Your task to perform on an android device: Open calendar and show me the fourth week of next month Image 0: 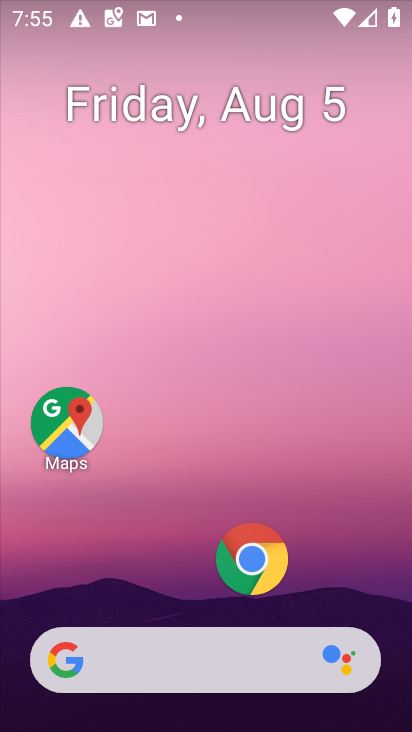
Step 0: drag from (155, 533) to (183, 194)
Your task to perform on an android device: Open calendar and show me the fourth week of next month Image 1: 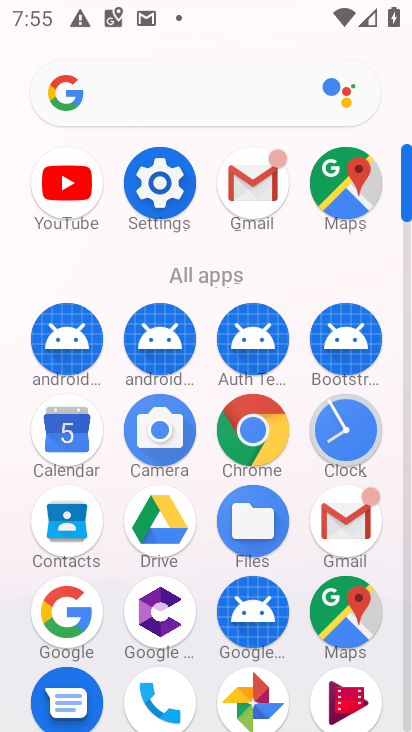
Step 1: click (75, 437)
Your task to perform on an android device: Open calendar and show me the fourth week of next month Image 2: 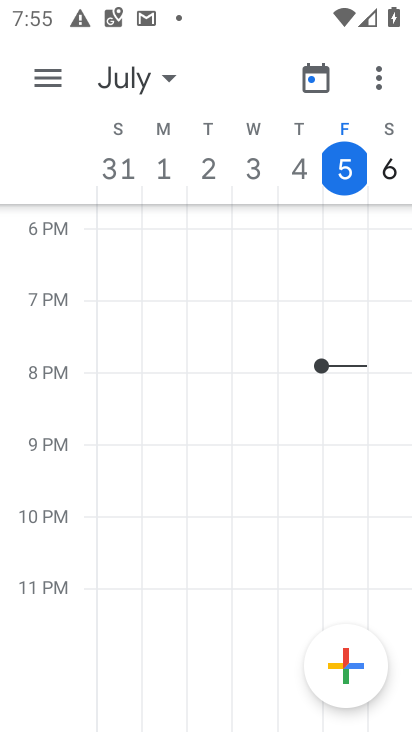
Step 2: click (53, 80)
Your task to perform on an android device: Open calendar and show me the fourth week of next month Image 3: 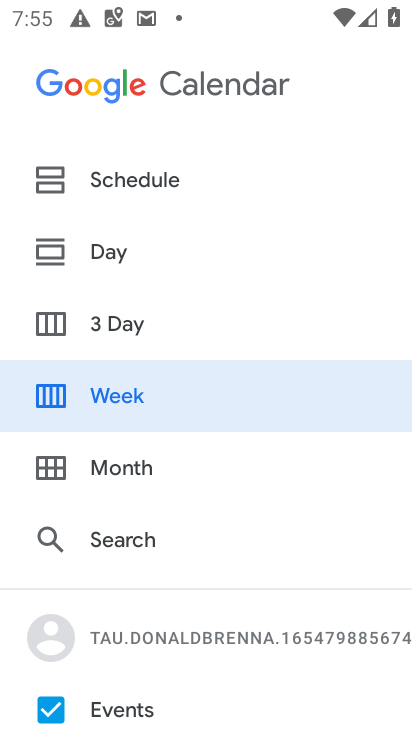
Step 3: click (116, 388)
Your task to perform on an android device: Open calendar and show me the fourth week of next month Image 4: 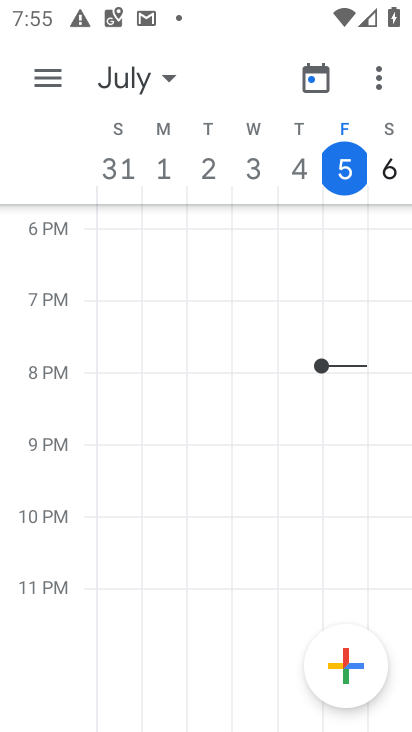
Step 4: click (166, 80)
Your task to perform on an android device: Open calendar and show me the fourth week of next month Image 5: 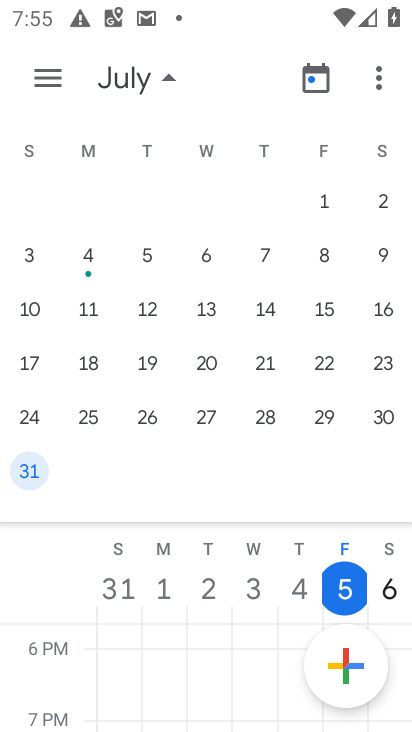
Step 5: drag from (298, 231) to (20, 231)
Your task to perform on an android device: Open calendar and show me the fourth week of next month Image 6: 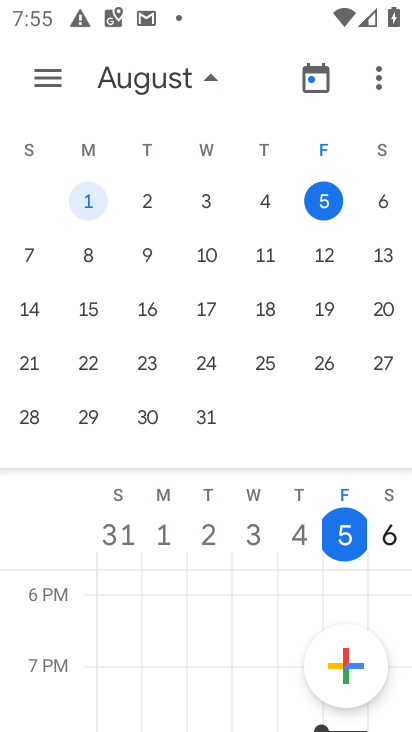
Step 6: drag from (331, 237) to (7, 197)
Your task to perform on an android device: Open calendar and show me the fourth week of next month Image 7: 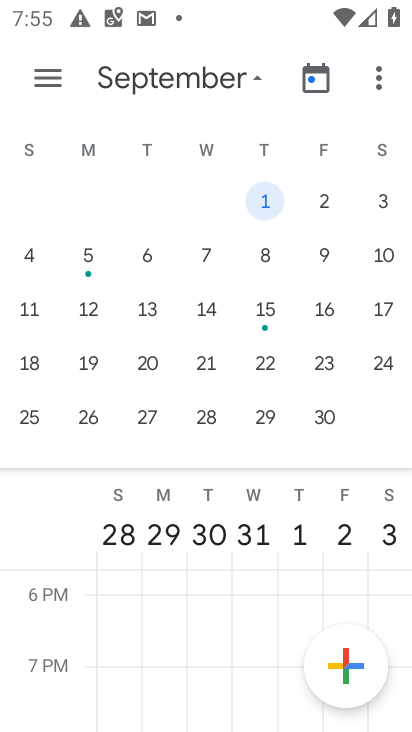
Step 7: click (326, 370)
Your task to perform on an android device: Open calendar and show me the fourth week of next month Image 8: 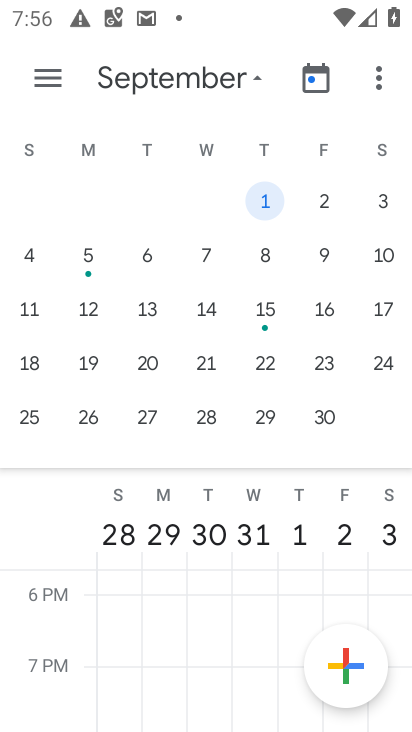
Step 8: click (197, 367)
Your task to perform on an android device: Open calendar and show me the fourth week of next month Image 9: 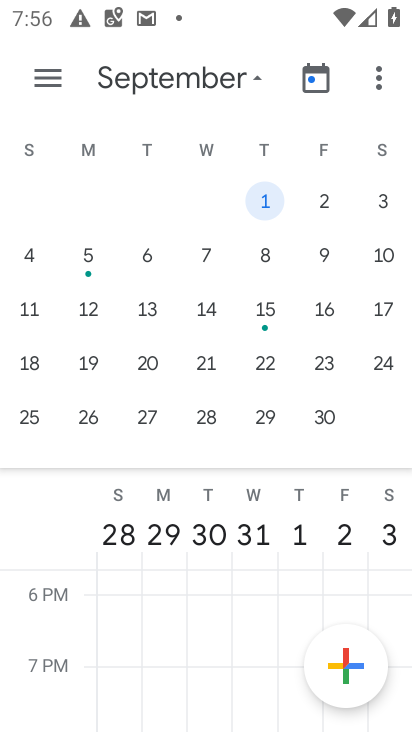
Step 9: click (212, 371)
Your task to perform on an android device: Open calendar and show me the fourth week of next month Image 10: 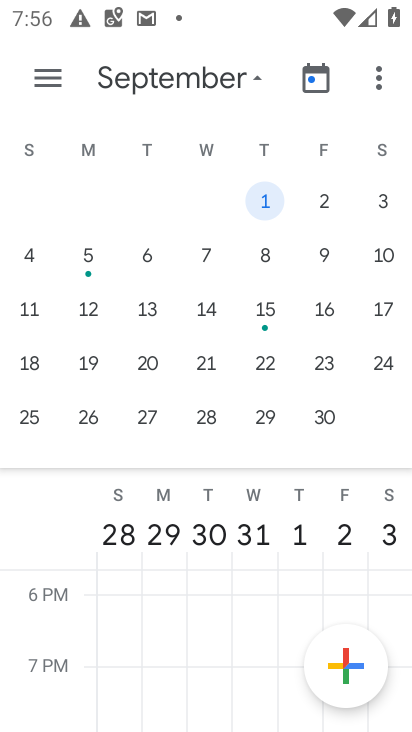
Step 10: click (212, 374)
Your task to perform on an android device: Open calendar and show me the fourth week of next month Image 11: 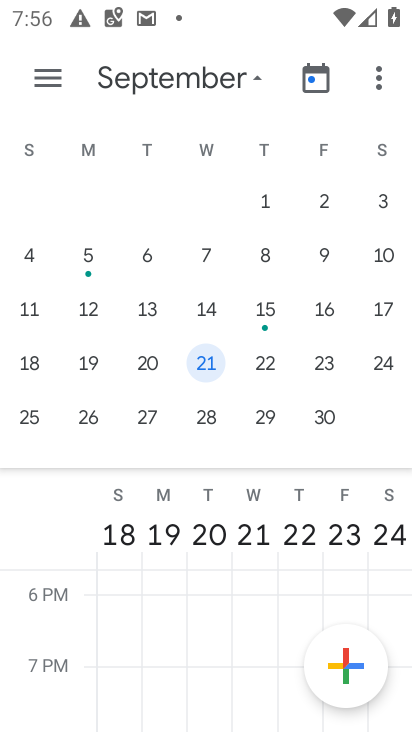
Step 11: click (31, 57)
Your task to perform on an android device: Open calendar and show me the fourth week of next month Image 12: 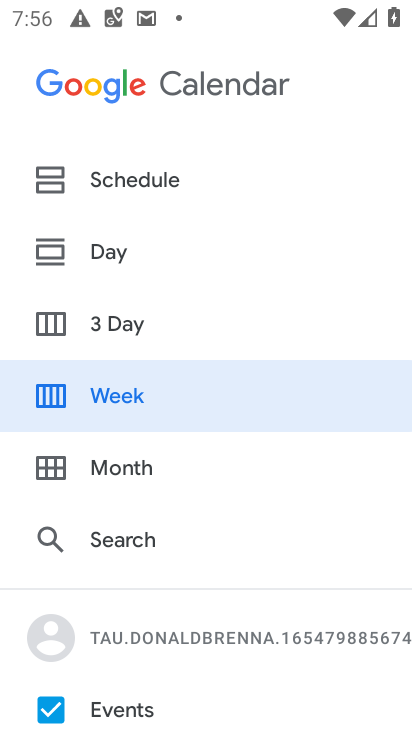
Step 12: click (122, 401)
Your task to perform on an android device: Open calendar and show me the fourth week of next month Image 13: 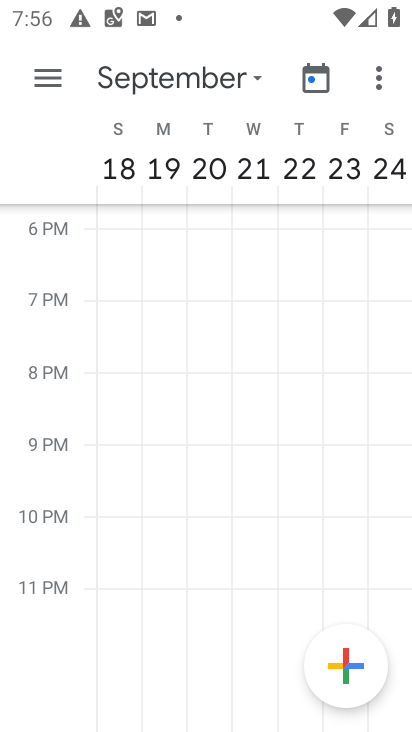
Step 13: task complete